Your task to perform on an android device: Open Chrome and go to settings Image 0: 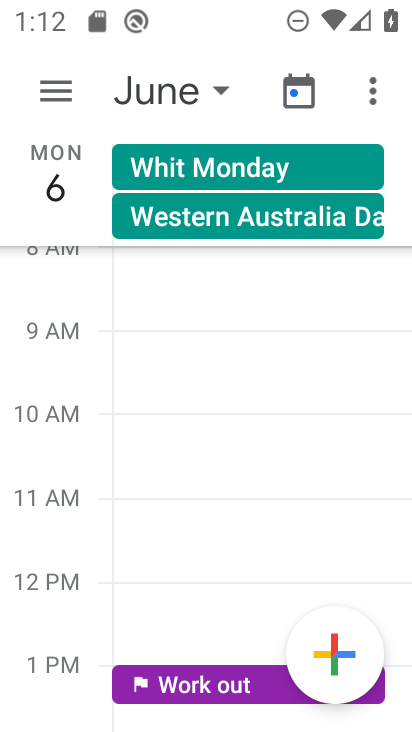
Step 0: press home button
Your task to perform on an android device: Open Chrome and go to settings Image 1: 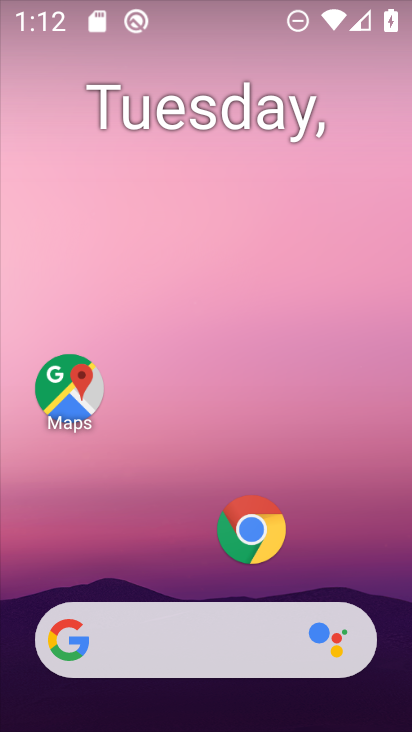
Step 1: drag from (189, 668) to (203, 107)
Your task to perform on an android device: Open Chrome and go to settings Image 2: 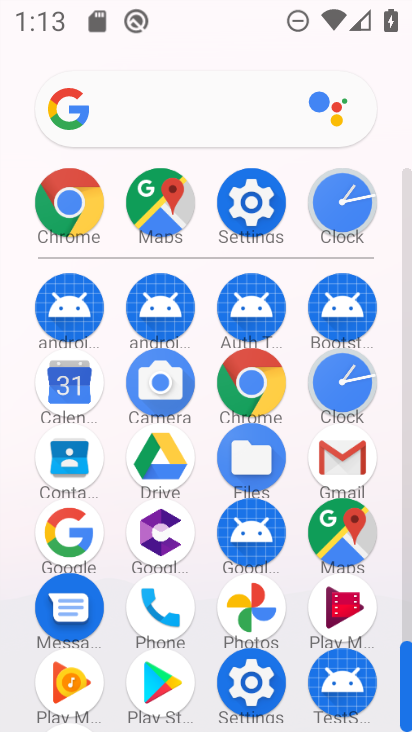
Step 2: click (249, 221)
Your task to perform on an android device: Open Chrome and go to settings Image 3: 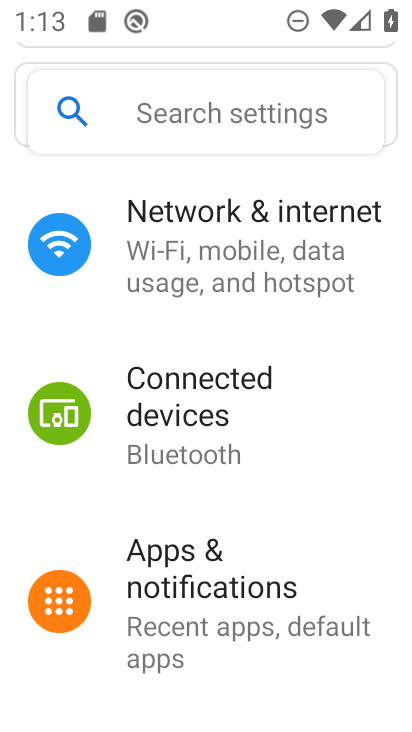
Step 3: press home button
Your task to perform on an android device: Open Chrome and go to settings Image 4: 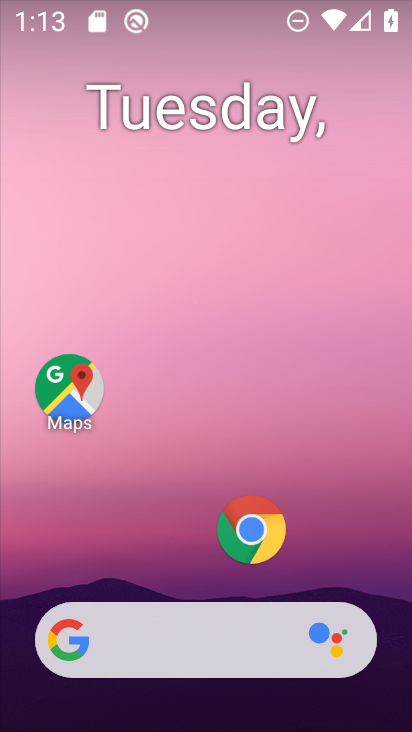
Step 4: click (242, 529)
Your task to perform on an android device: Open Chrome and go to settings Image 5: 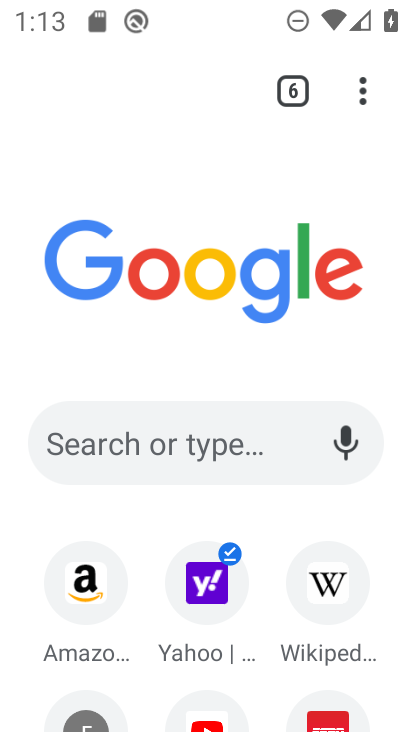
Step 5: click (361, 103)
Your task to perform on an android device: Open Chrome and go to settings Image 6: 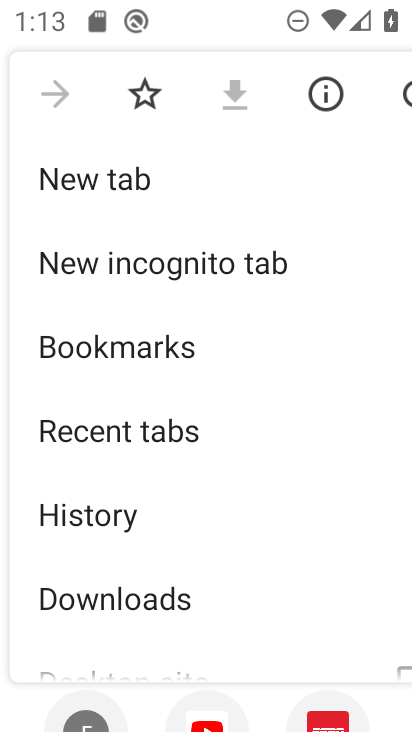
Step 6: drag from (187, 533) to (252, 262)
Your task to perform on an android device: Open Chrome and go to settings Image 7: 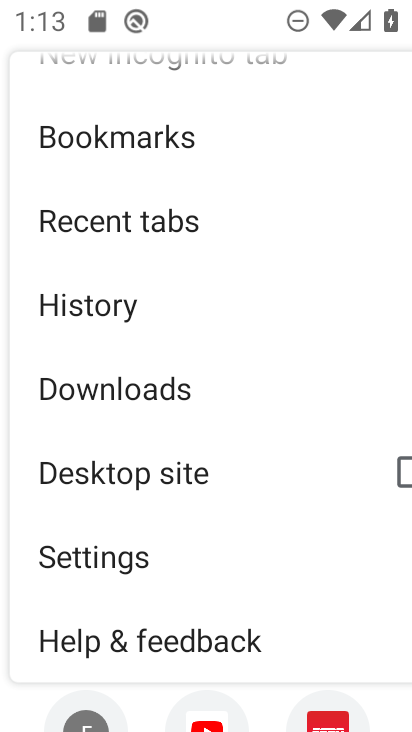
Step 7: click (112, 558)
Your task to perform on an android device: Open Chrome and go to settings Image 8: 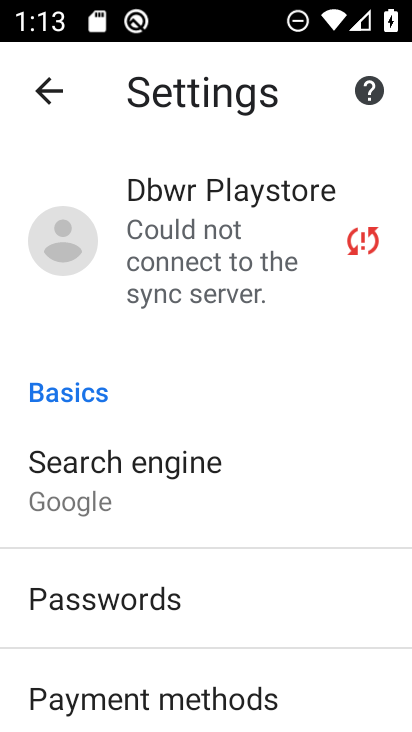
Step 8: task complete